Your task to perform on an android device: change your default location settings in chrome Image 0: 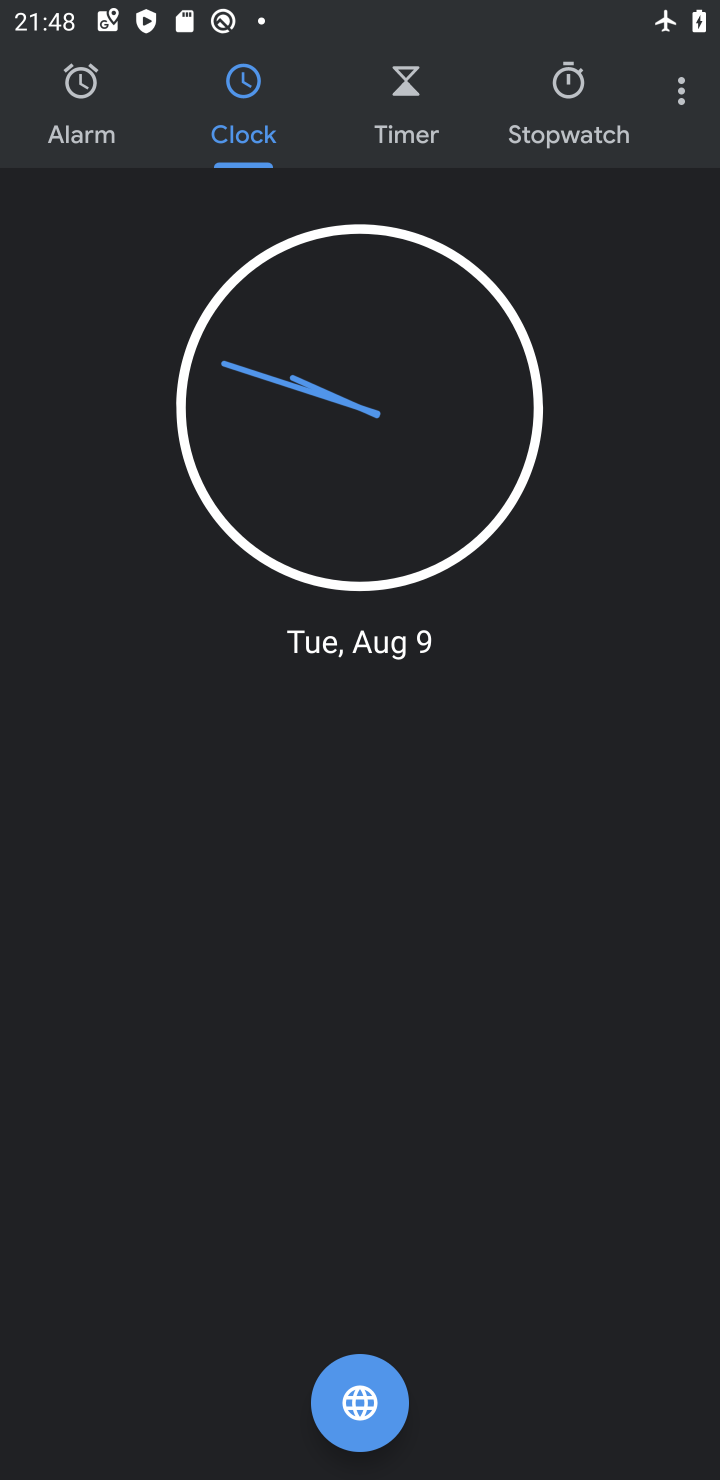
Step 0: press home button
Your task to perform on an android device: change your default location settings in chrome Image 1: 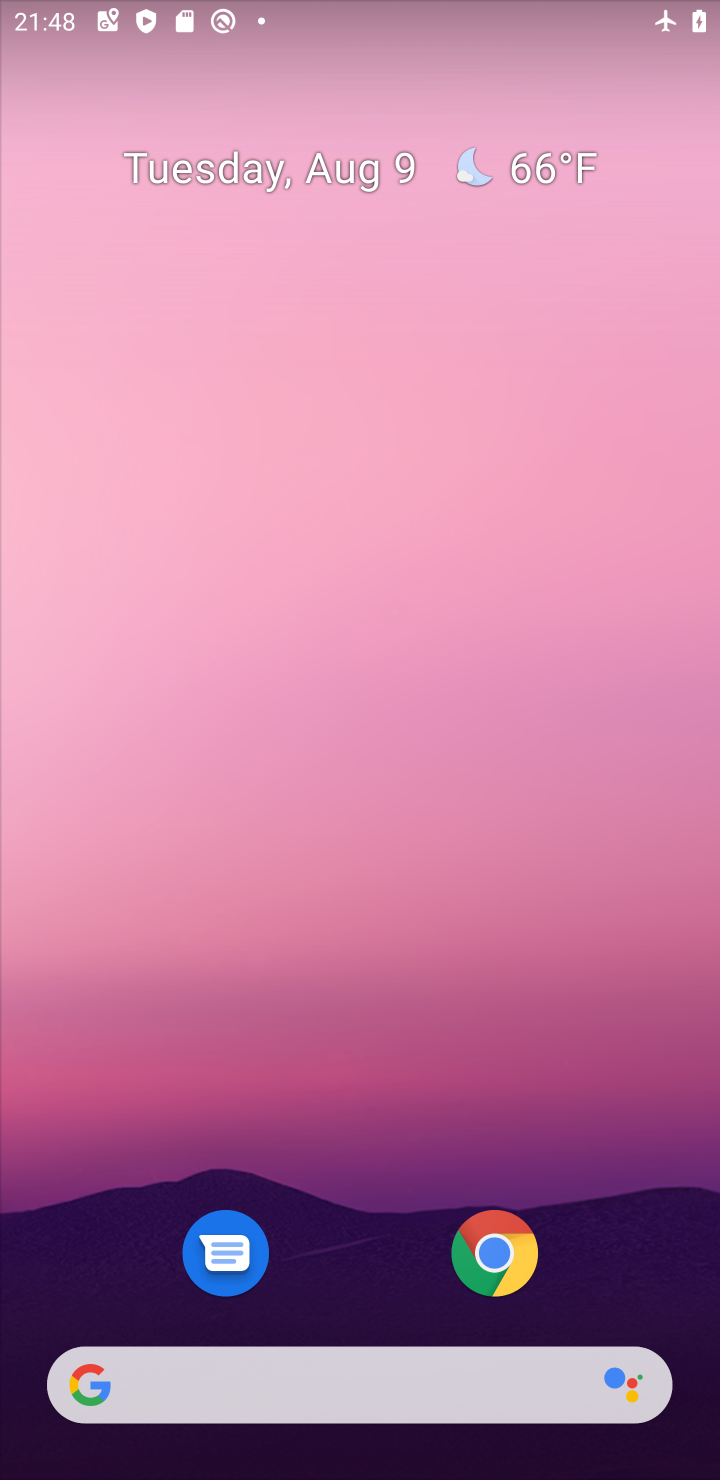
Step 1: drag from (317, 1252) to (489, 10)
Your task to perform on an android device: change your default location settings in chrome Image 2: 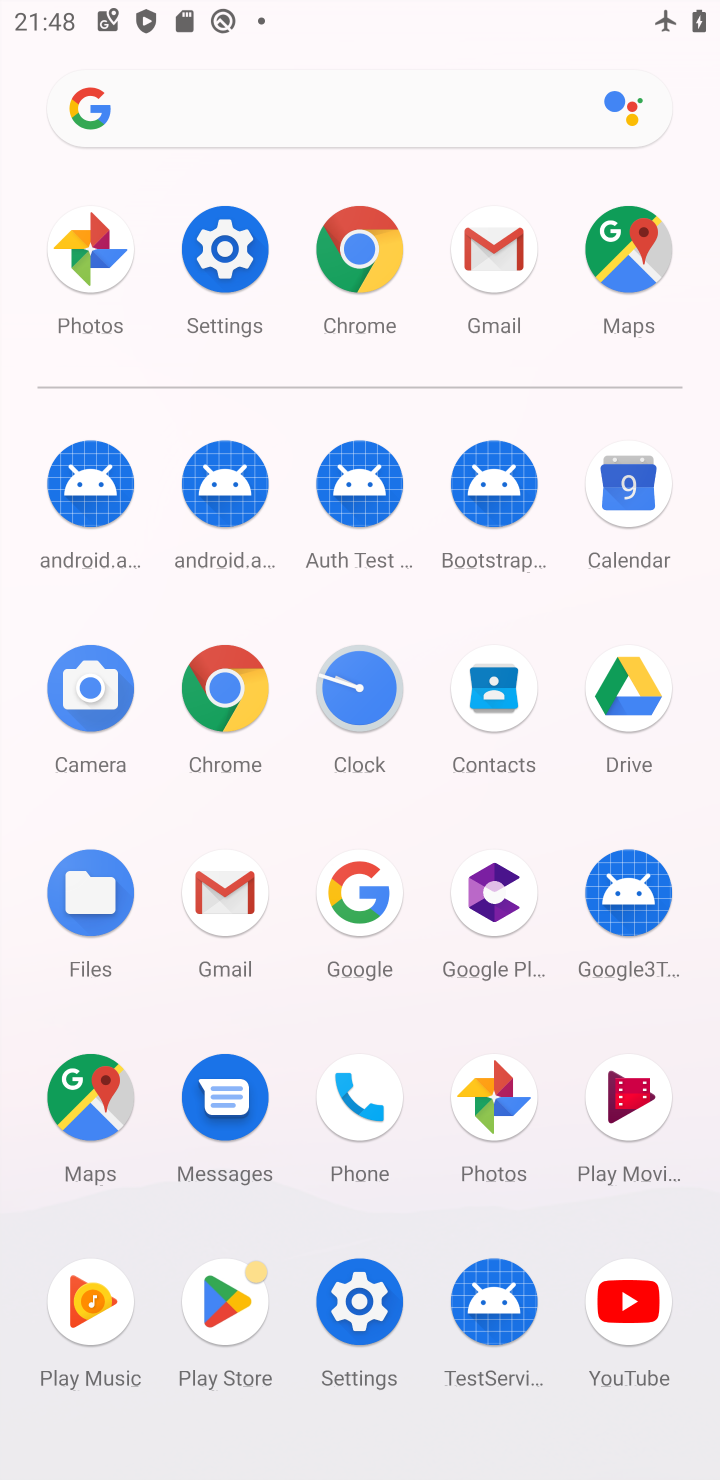
Step 2: click (223, 692)
Your task to perform on an android device: change your default location settings in chrome Image 3: 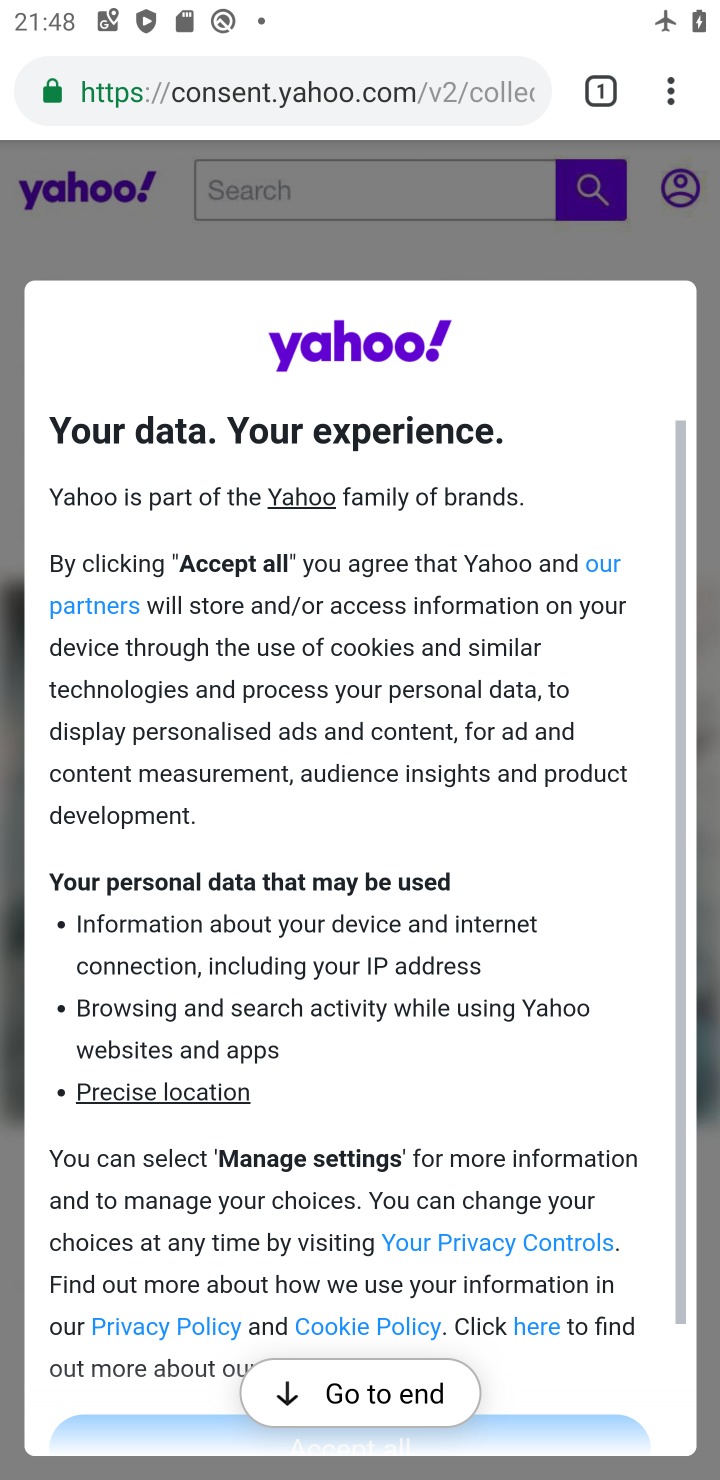
Step 3: drag from (665, 91) to (335, 1013)
Your task to perform on an android device: change your default location settings in chrome Image 4: 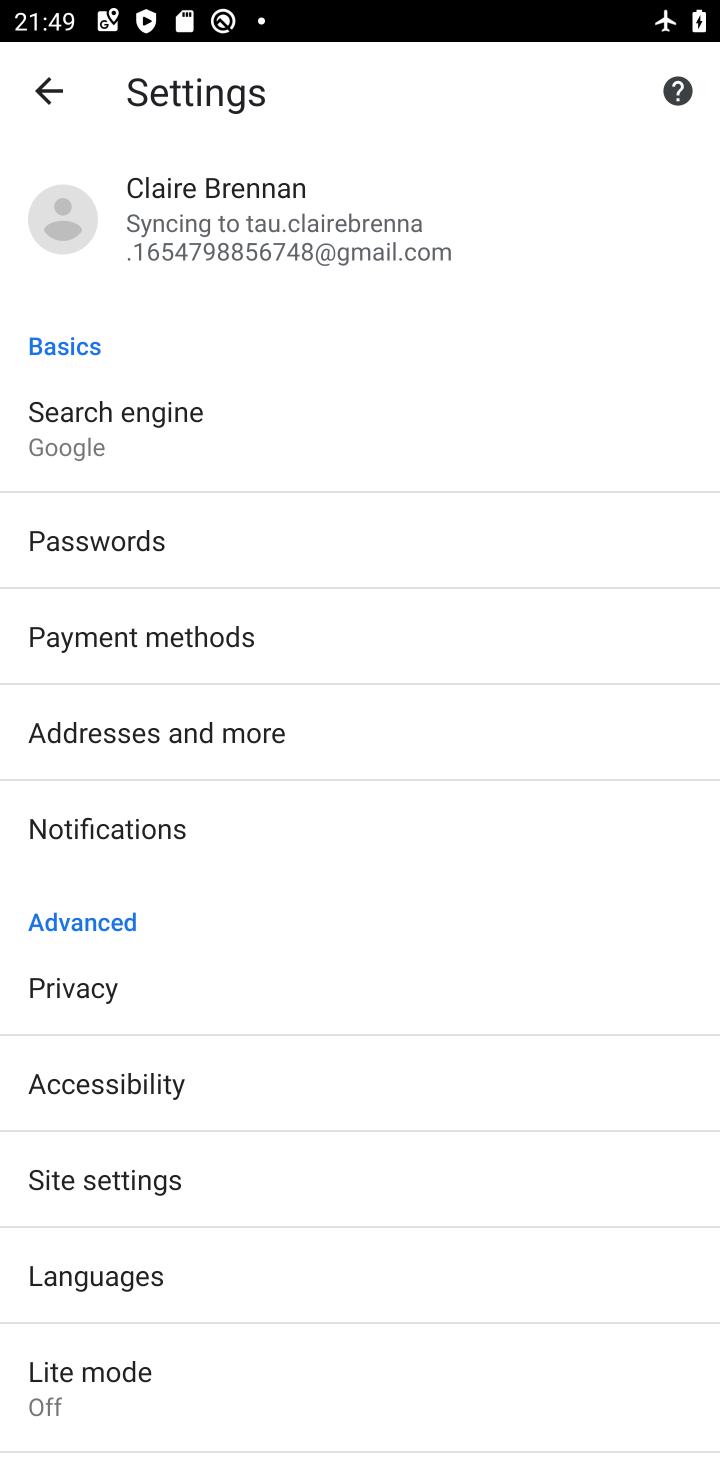
Step 4: click (70, 1175)
Your task to perform on an android device: change your default location settings in chrome Image 5: 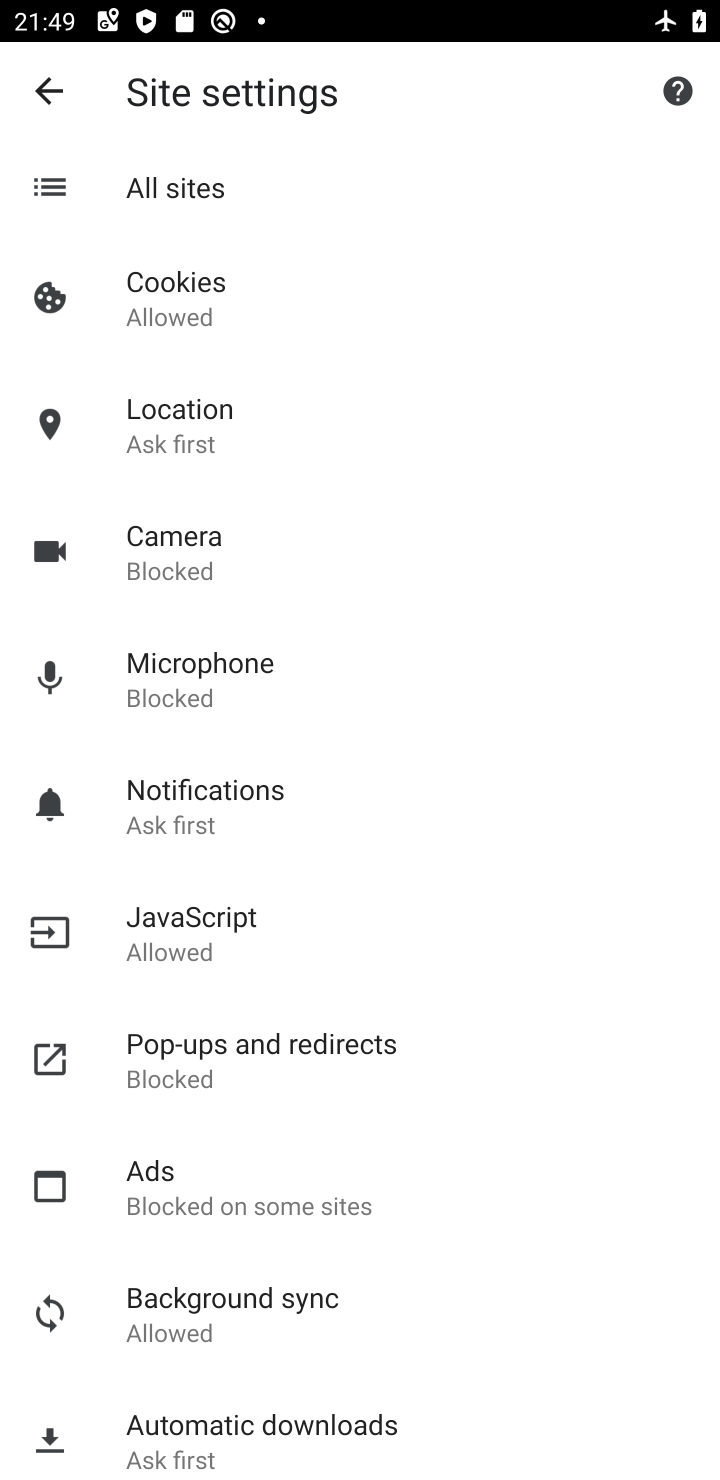
Step 5: click (221, 432)
Your task to perform on an android device: change your default location settings in chrome Image 6: 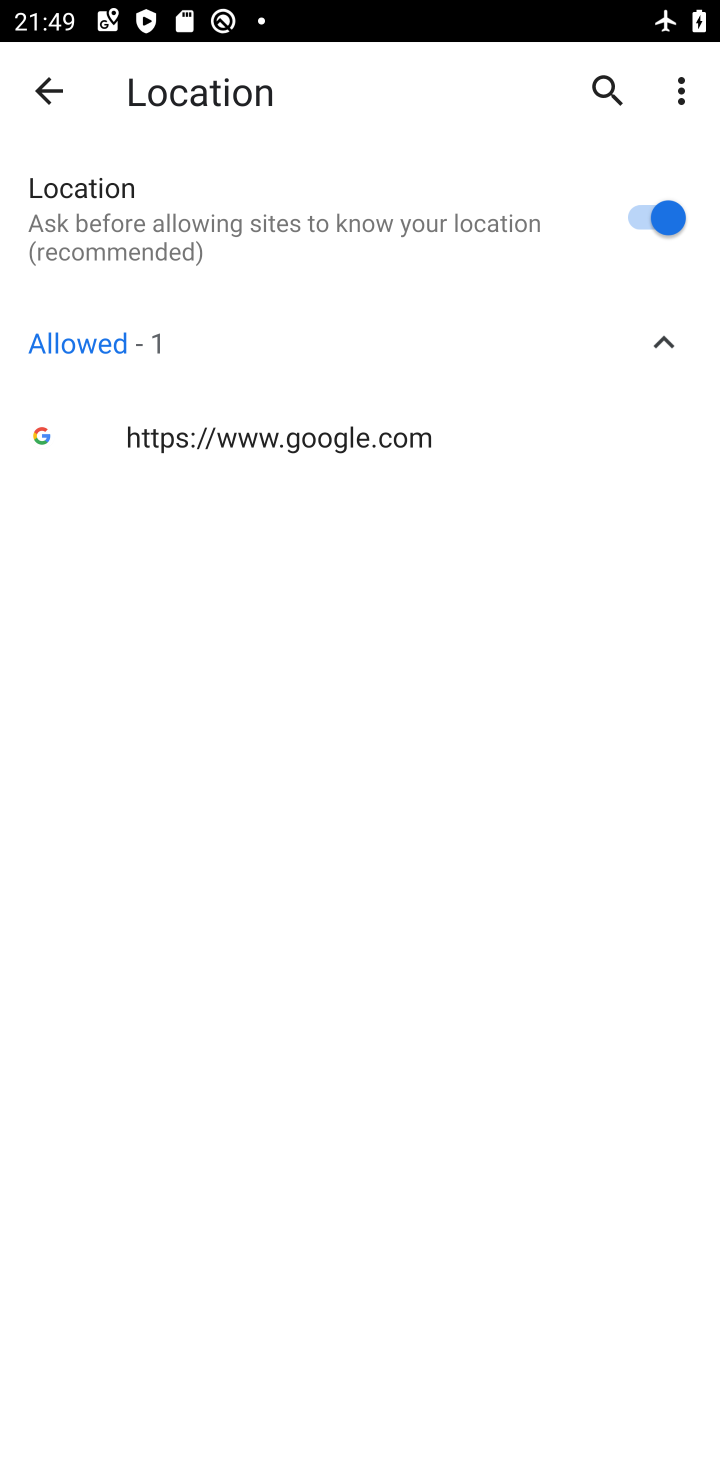
Step 6: click (632, 216)
Your task to perform on an android device: change your default location settings in chrome Image 7: 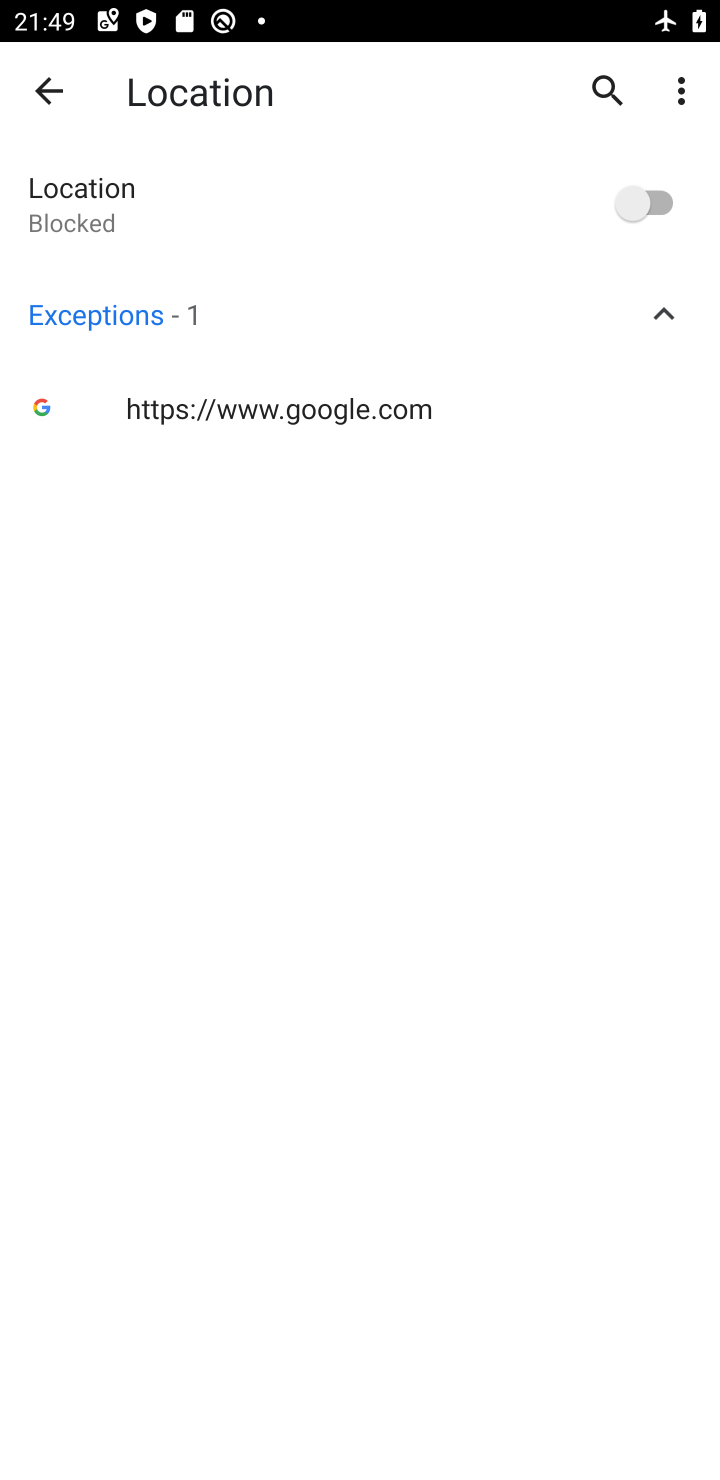
Step 7: task complete